Your task to perform on an android device: Search for "asus zenbook" on costco, select the first entry, and add it to the cart. Image 0: 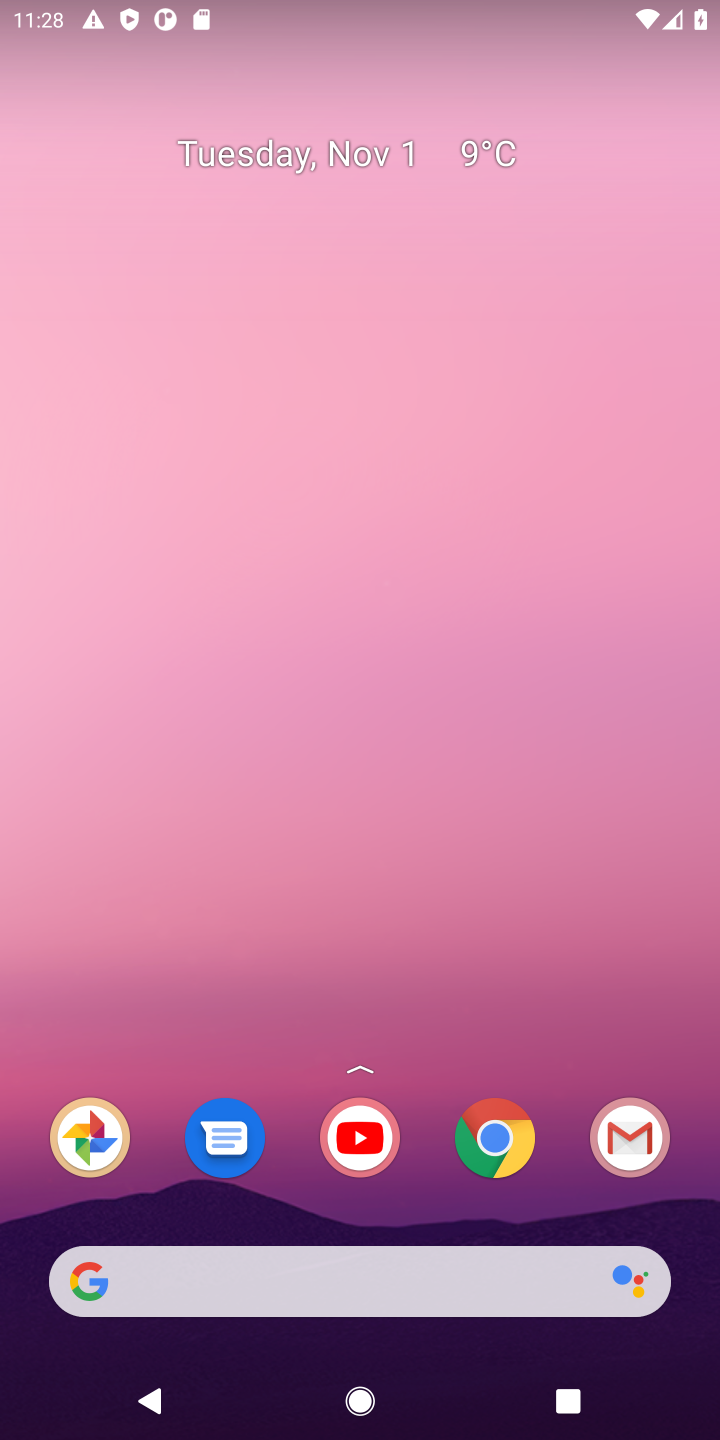
Step 0: click (289, 1289)
Your task to perform on an android device: Search for "asus zenbook" on costco, select the first entry, and add it to the cart. Image 1: 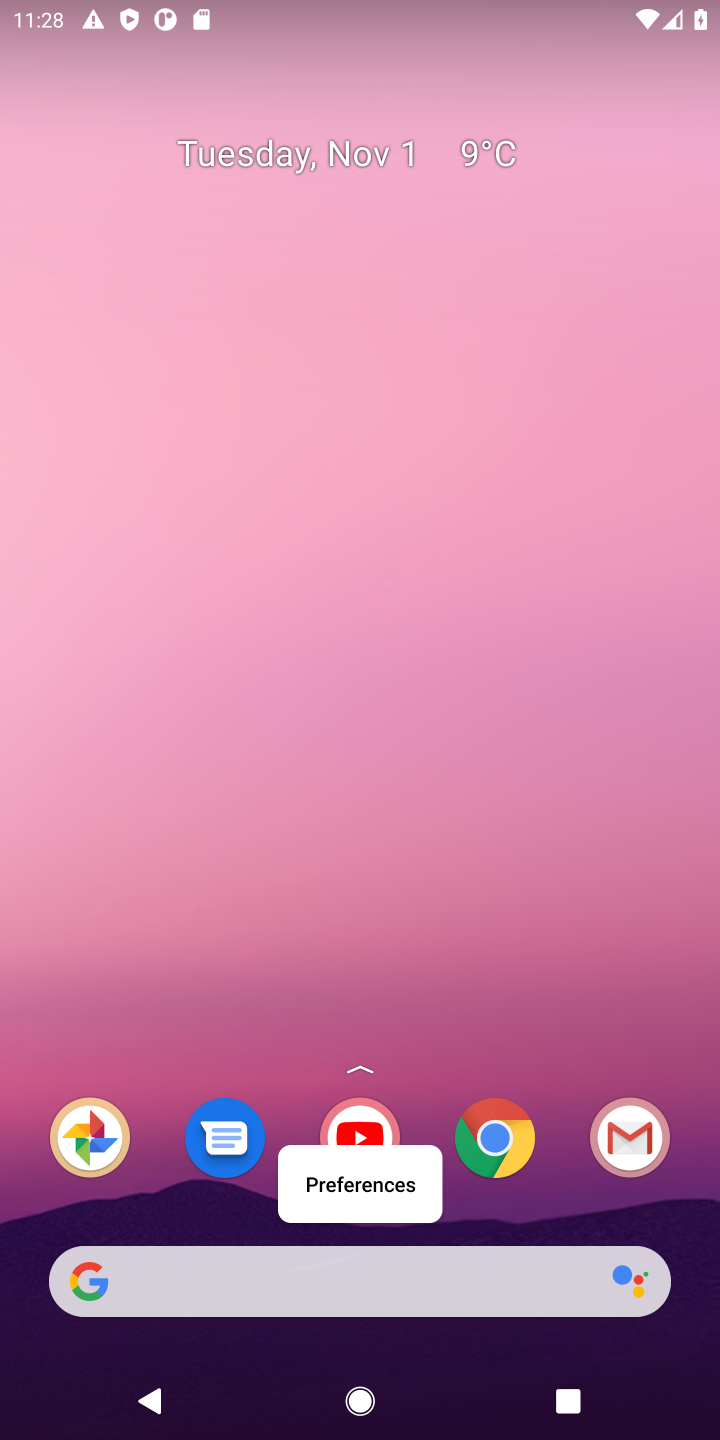
Step 1: click (297, 1299)
Your task to perform on an android device: Search for "asus zenbook" on costco, select the first entry, and add it to the cart. Image 2: 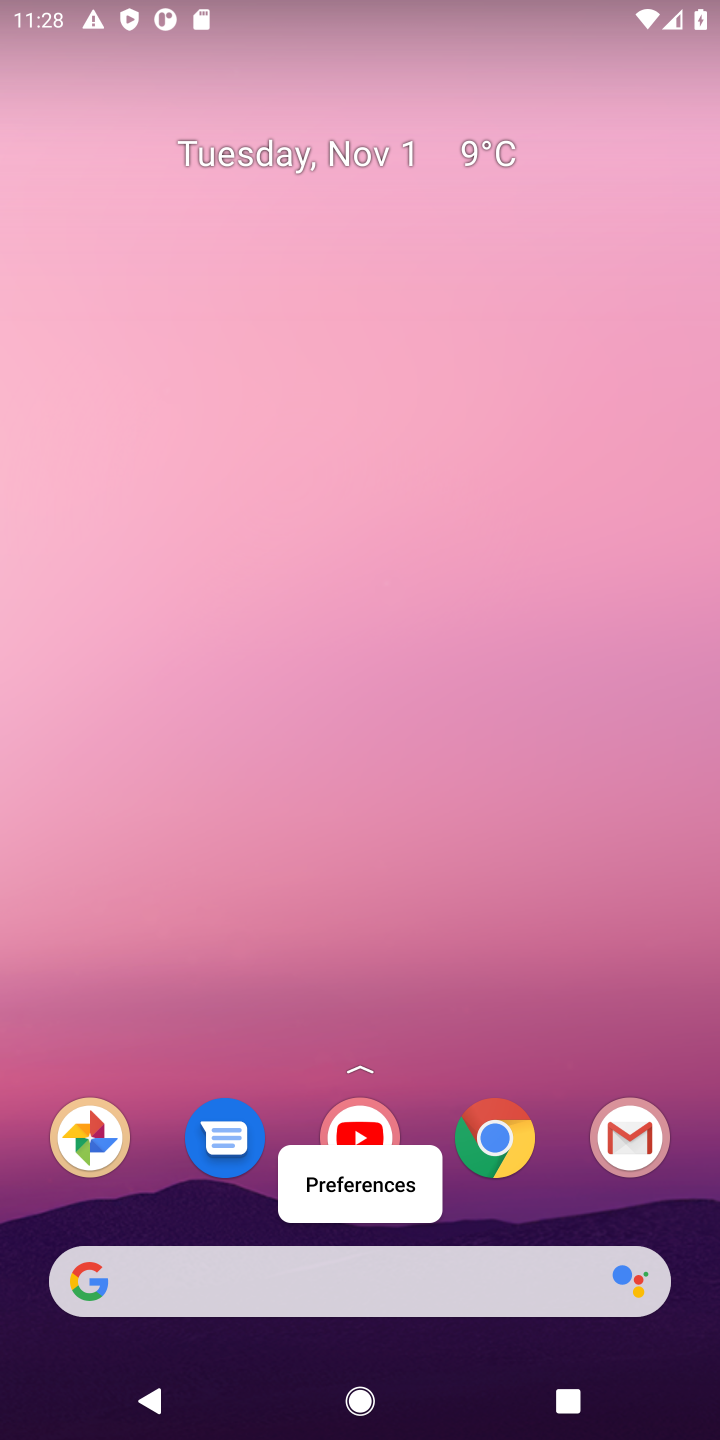
Step 2: click (446, 1274)
Your task to perform on an android device: Search for "asus zenbook" on costco, select the first entry, and add it to the cart. Image 3: 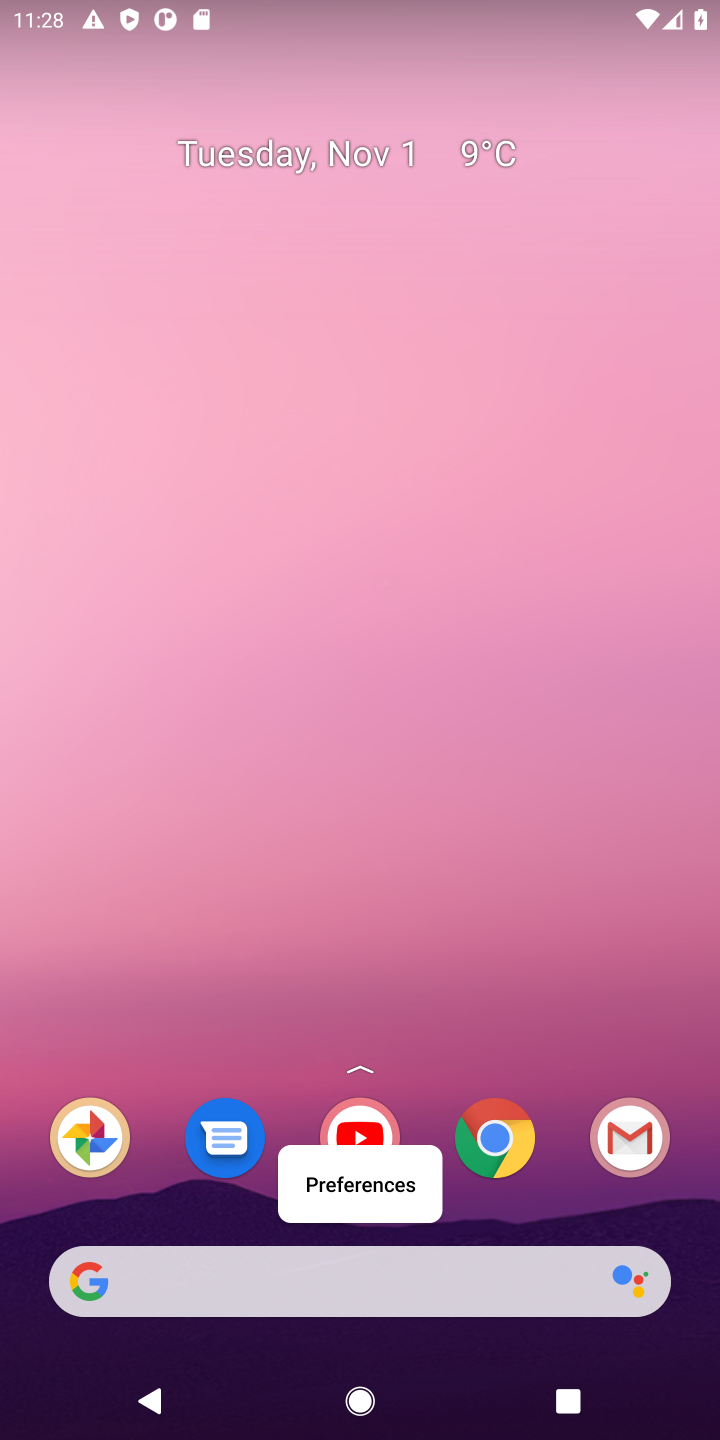
Step 3: click (446, 1274)
Your task to perform on an android device: Search for "asus zenbook" on costco, select the first entry, and add it to the cart. Image 4: 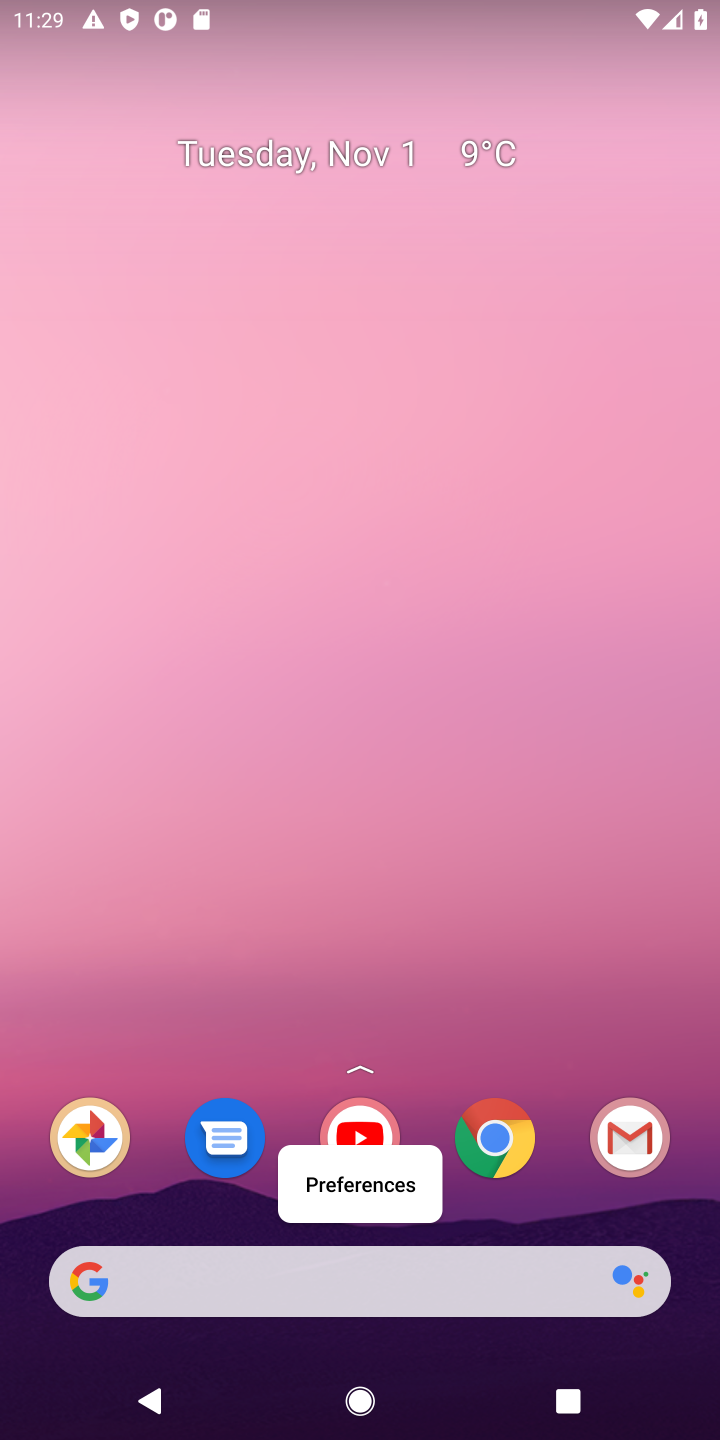
Step 4: click (430, 1297)
Your task to perform on an android device: Search for "asus zenbook" on costco, select the first entry, and add it to the cart. Image 5: 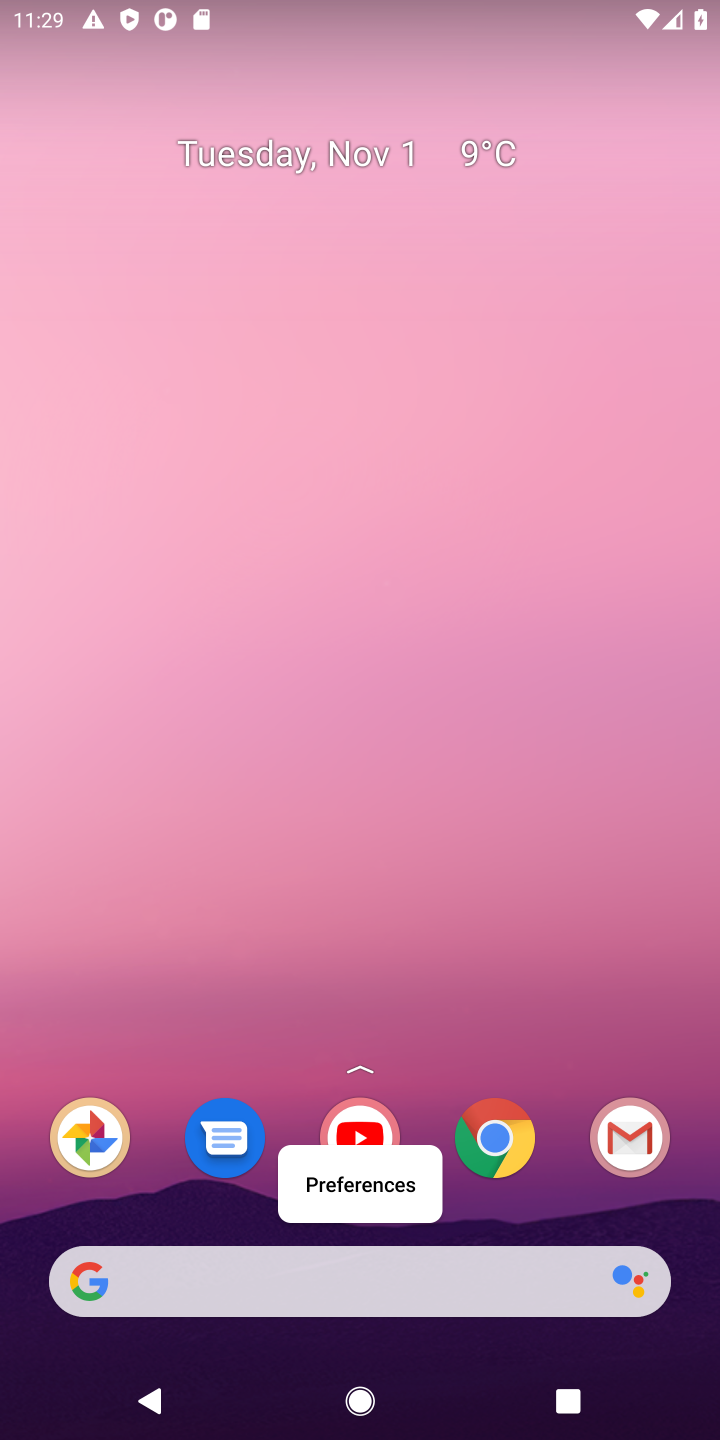
Step 5: click (453, 1280)
Your task to perform on an android device: Search for "asus zenbook" on costco, select the first entry, and add it to the cart. Image 6: 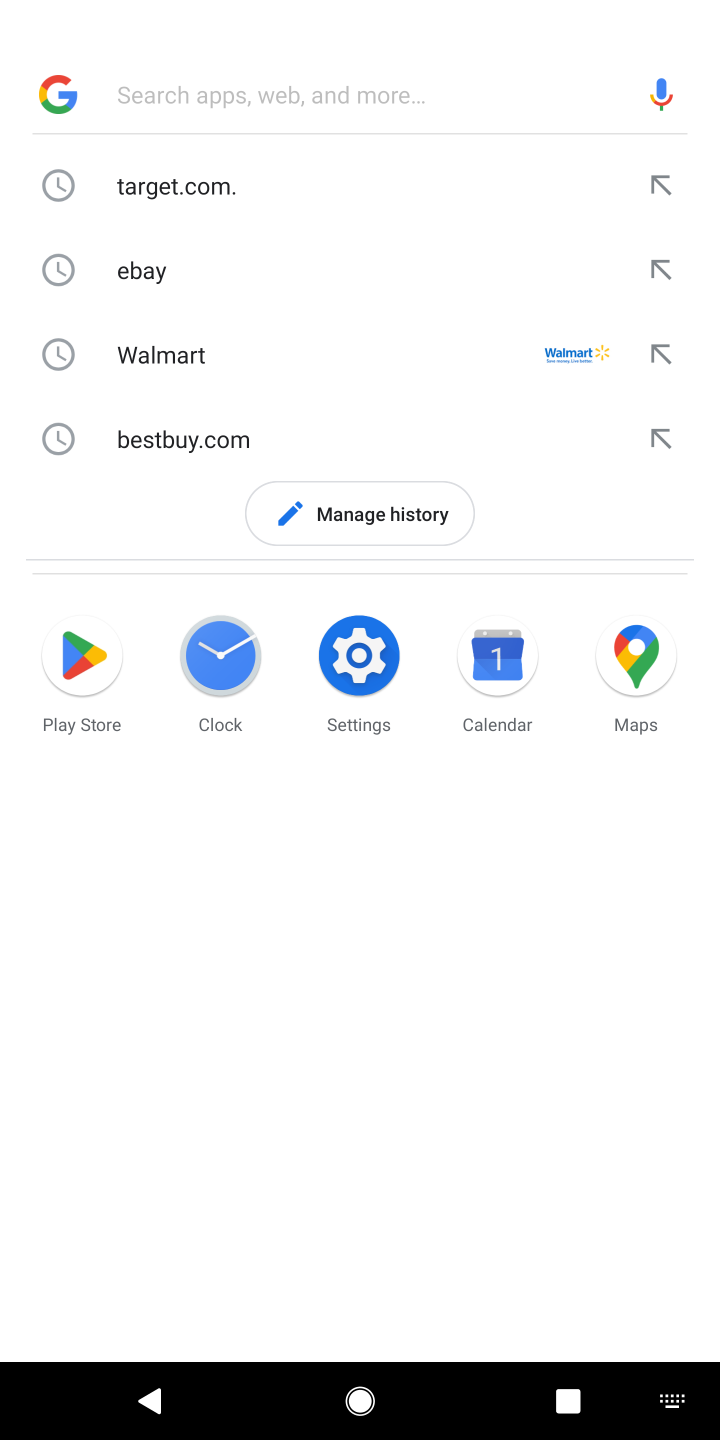
Step 6: type "costco"
Your task to perform on an android device: Search for "asus zenbook" on costco, select the first entry, and add it to the cart. Image 7: 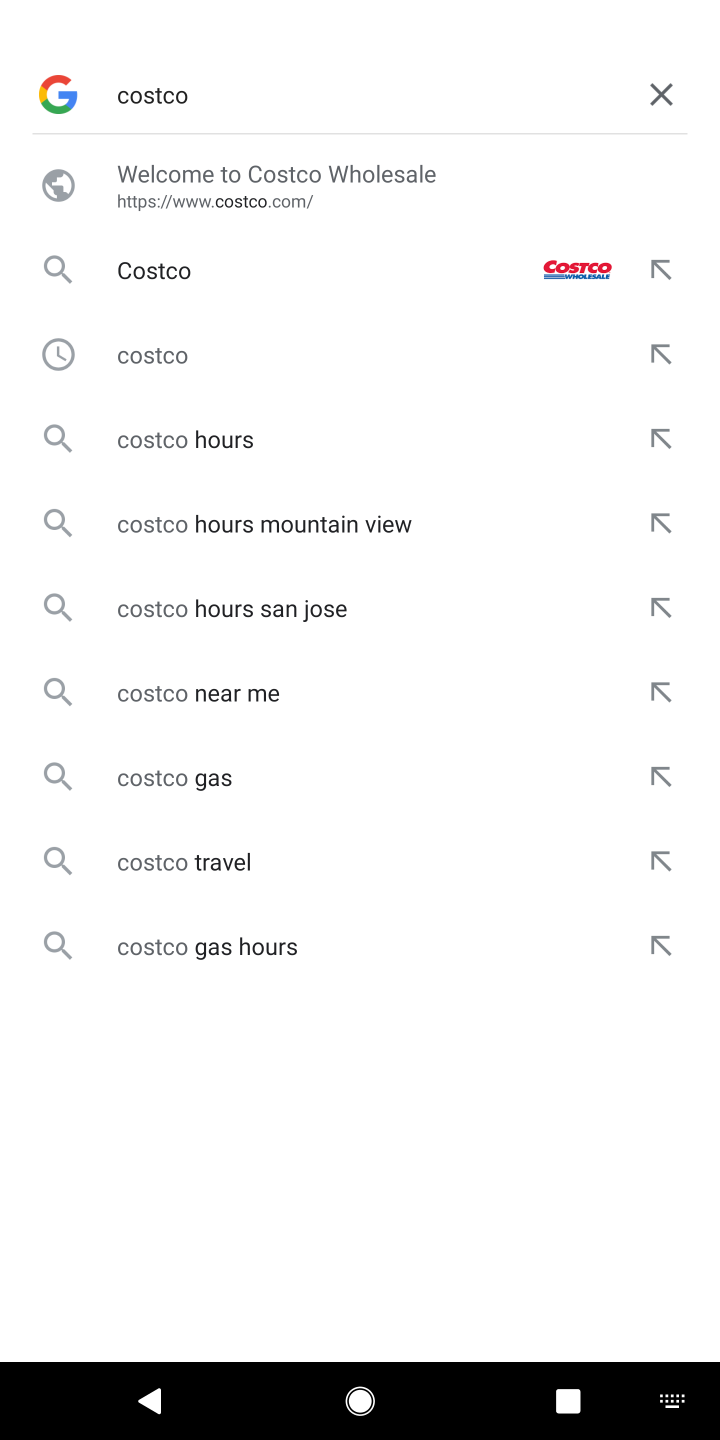
Step 7: type ""
Your task to perform on an android device: Search for "asus zenbook" on costco, select the first entry, and add it to the cart. Image 8: 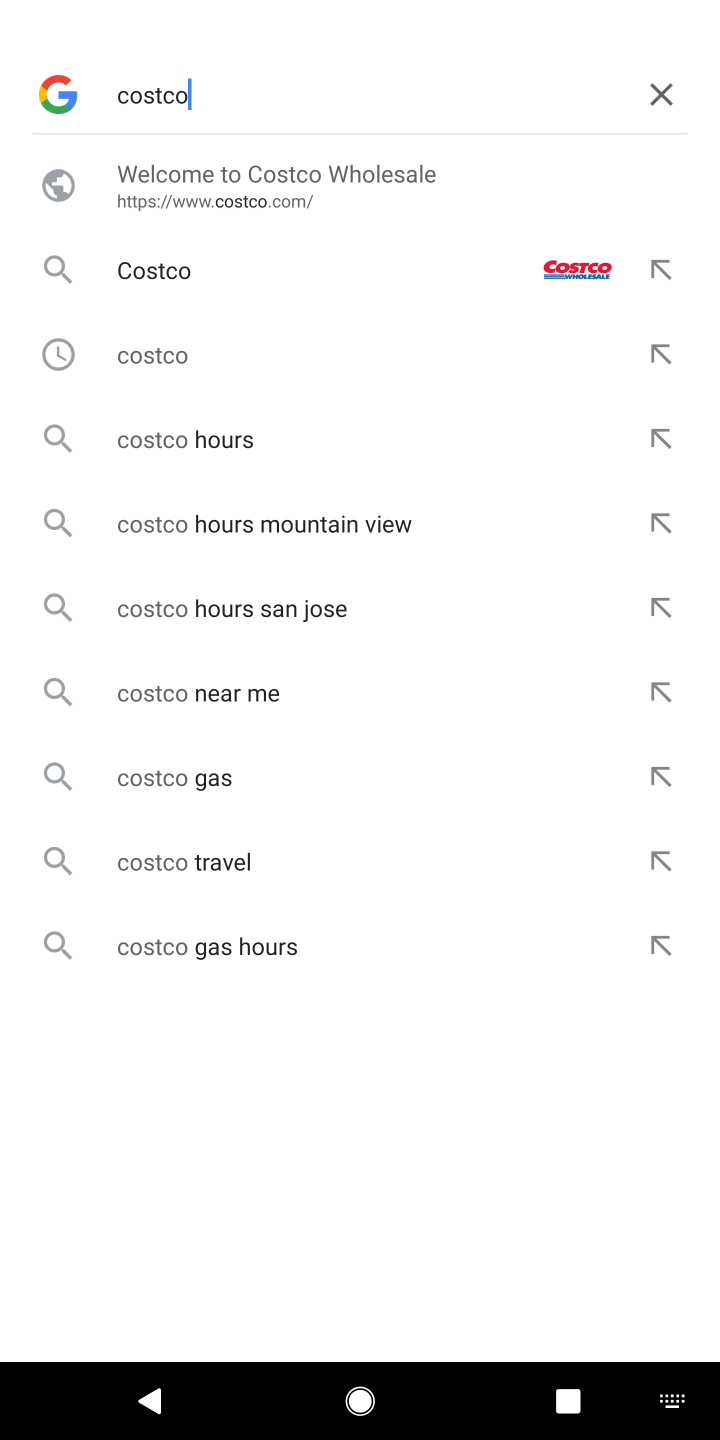
Step 8: click (230, 257)
Your task to perform on an android device: Search for "asus zenbook" on costco, select the first entry, and add it to the cart. Image 9: 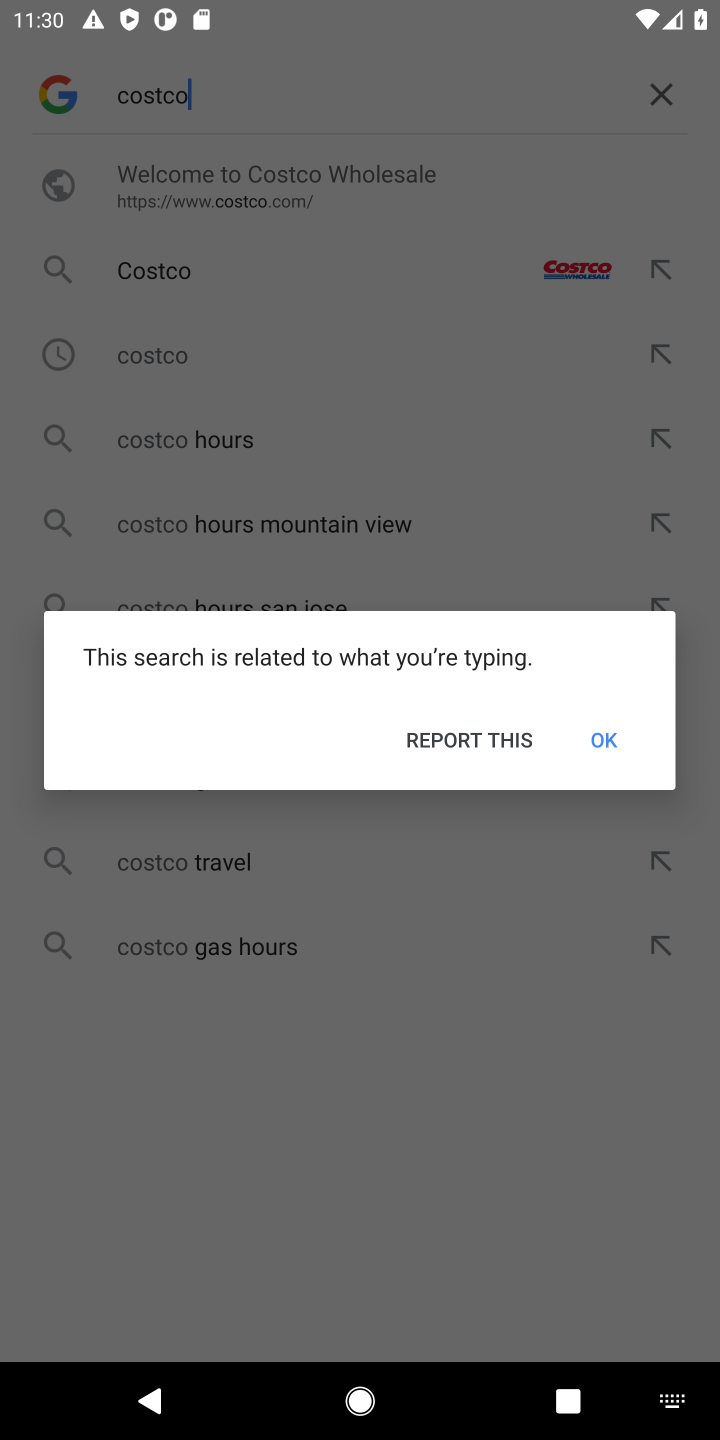
Step 9: click (595, 729)
Your task to perform on an android device: Search for "asus zenbook" on costco, select the first entry, and add it to the cart. Image 10: 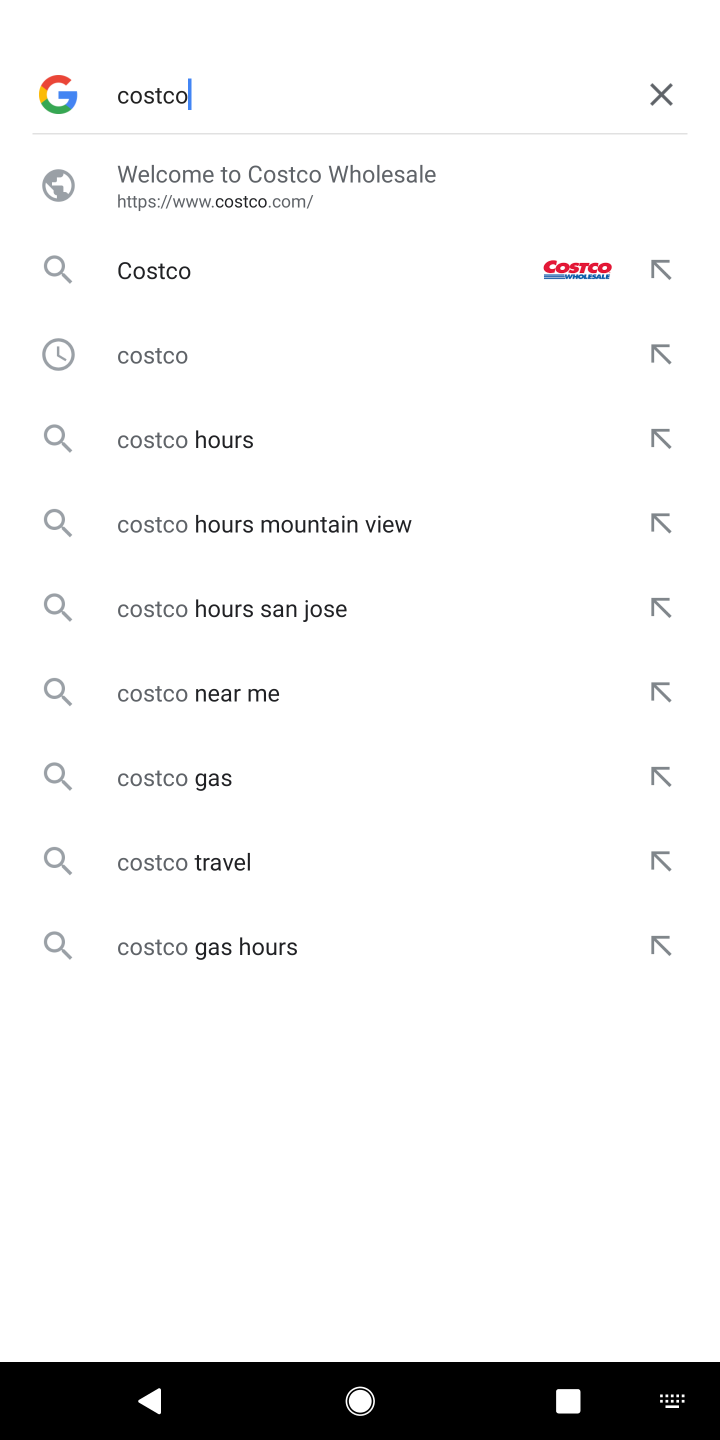
Step 10: click (254, 290)
Your task to perform on an android device: Search for "asus zenbook" on costco, select the first entry, and add it to the cart. Image 11: 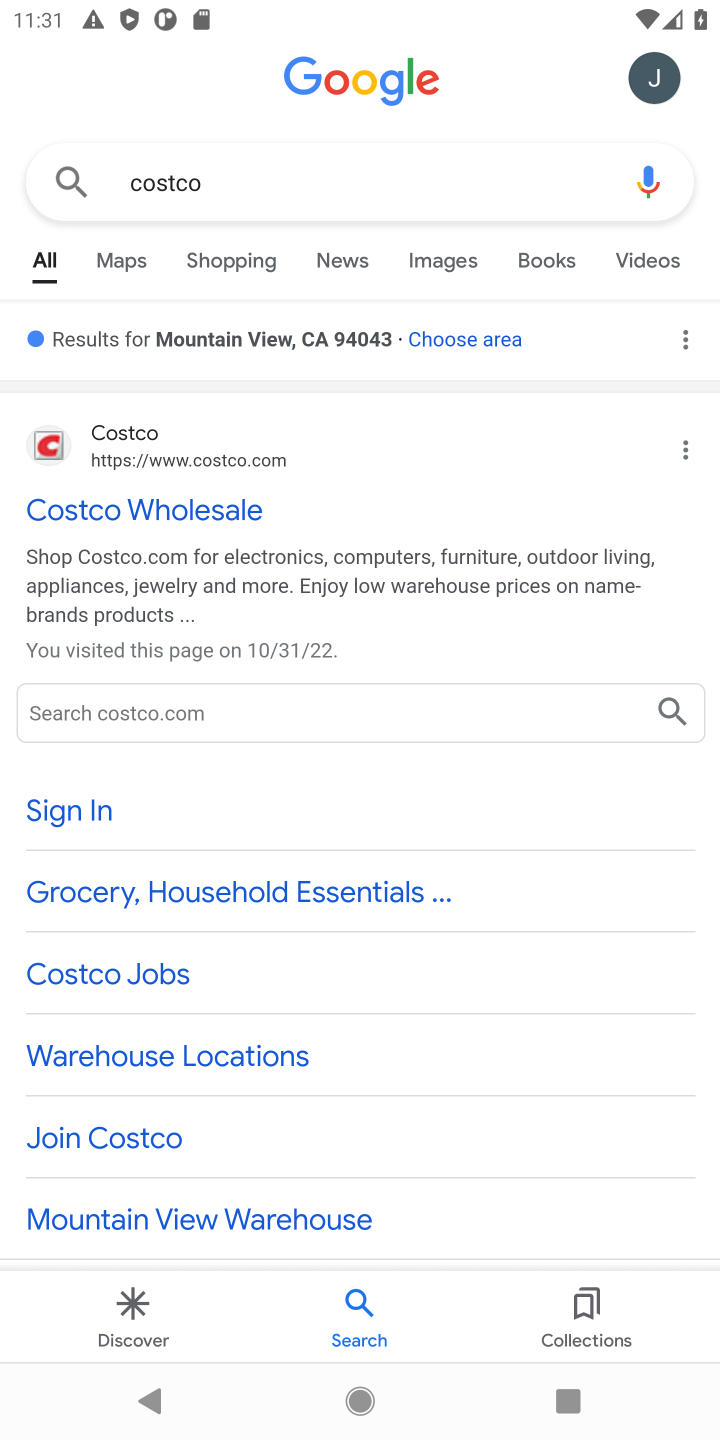
Step 11: click (110, 531)
Your task to perform on an android device: Search for "asus zenbook" on costco, select the first entry, and add it to the cart. Image 12: 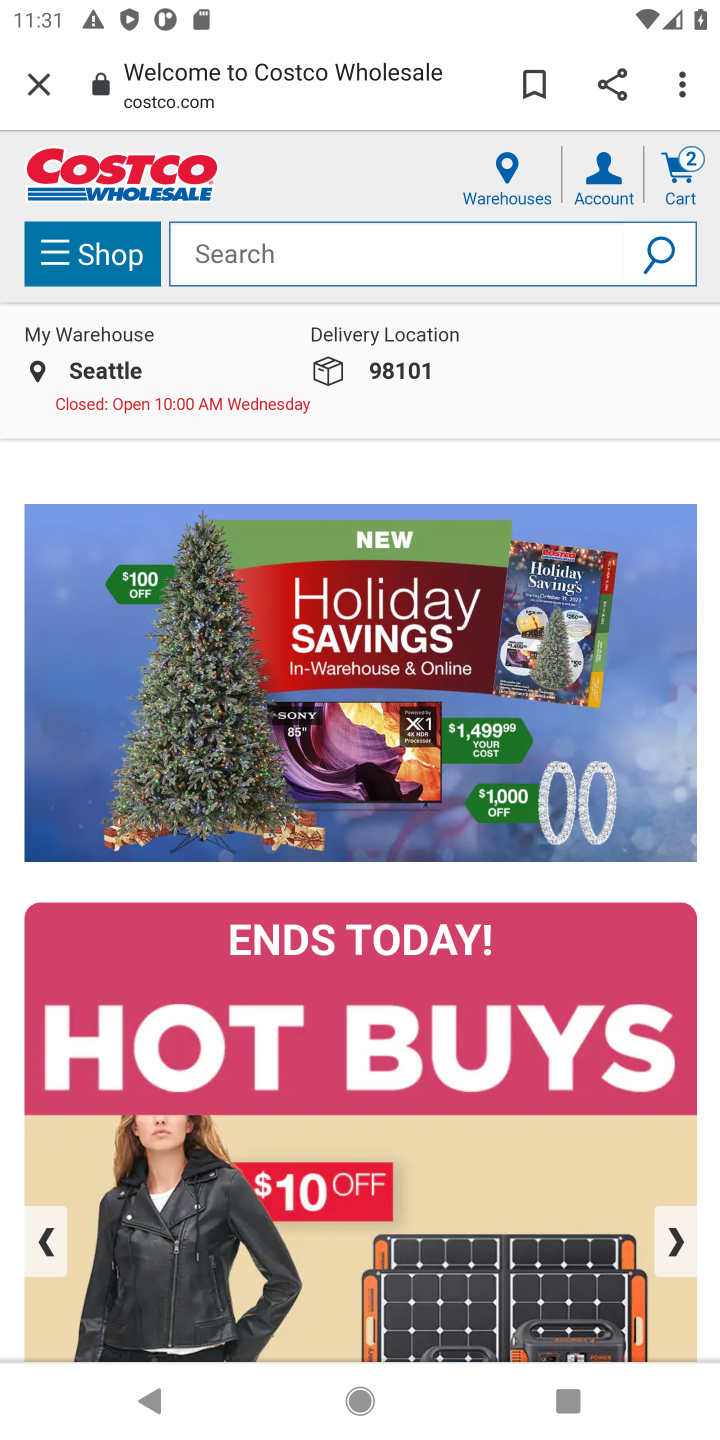
Step 12: click (257, 253)
Your task to perform on an android device: Search for "asus zenbook" on costco, select the first entry, and add it to the cart. Image 13: 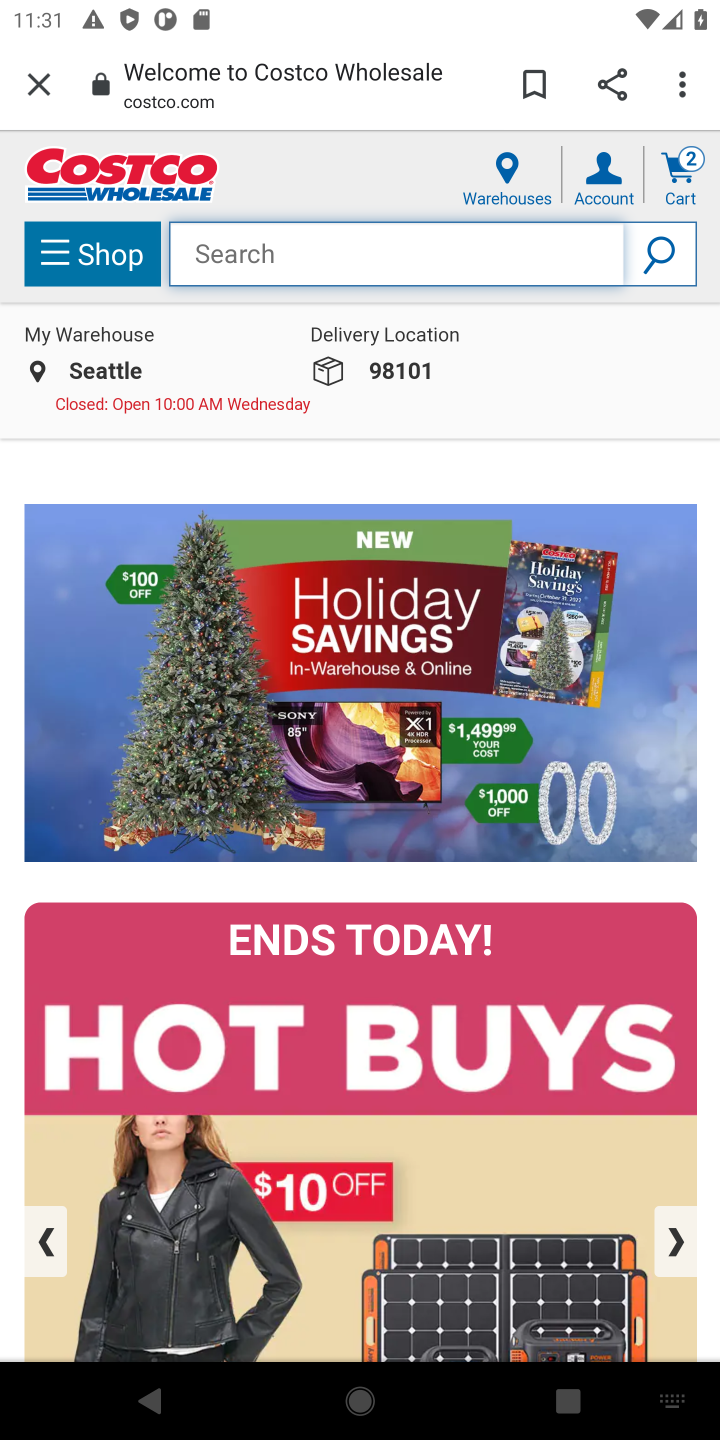
Step 13: type "asus zenbook"
Your task to perform on an android device: Search for "asus zenbook" on costco, select the first entry, and add it to the cart. Image 14: 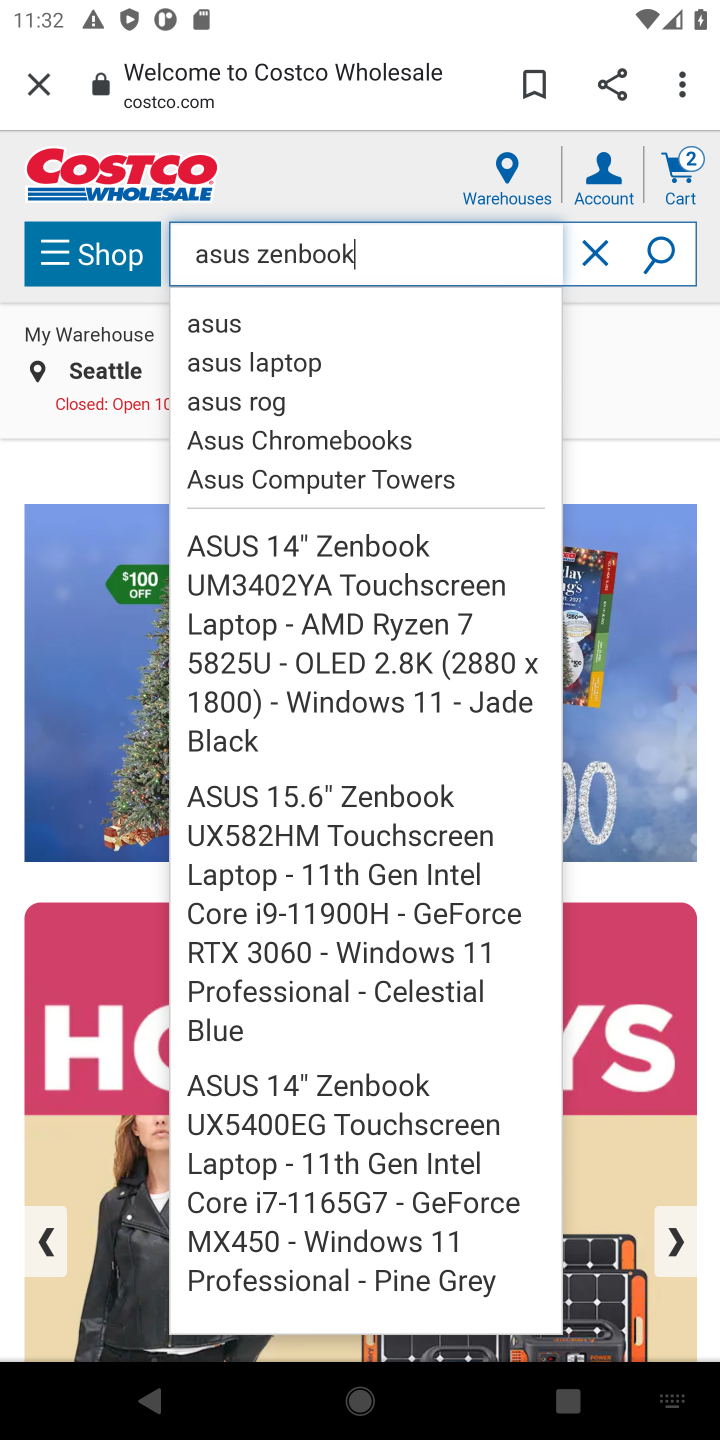
Step 14: click (653, 255)
Your task to perform on an android device: Search for "asus zenbook" on costco, select the first entry, and add it to the cart. Image 15: 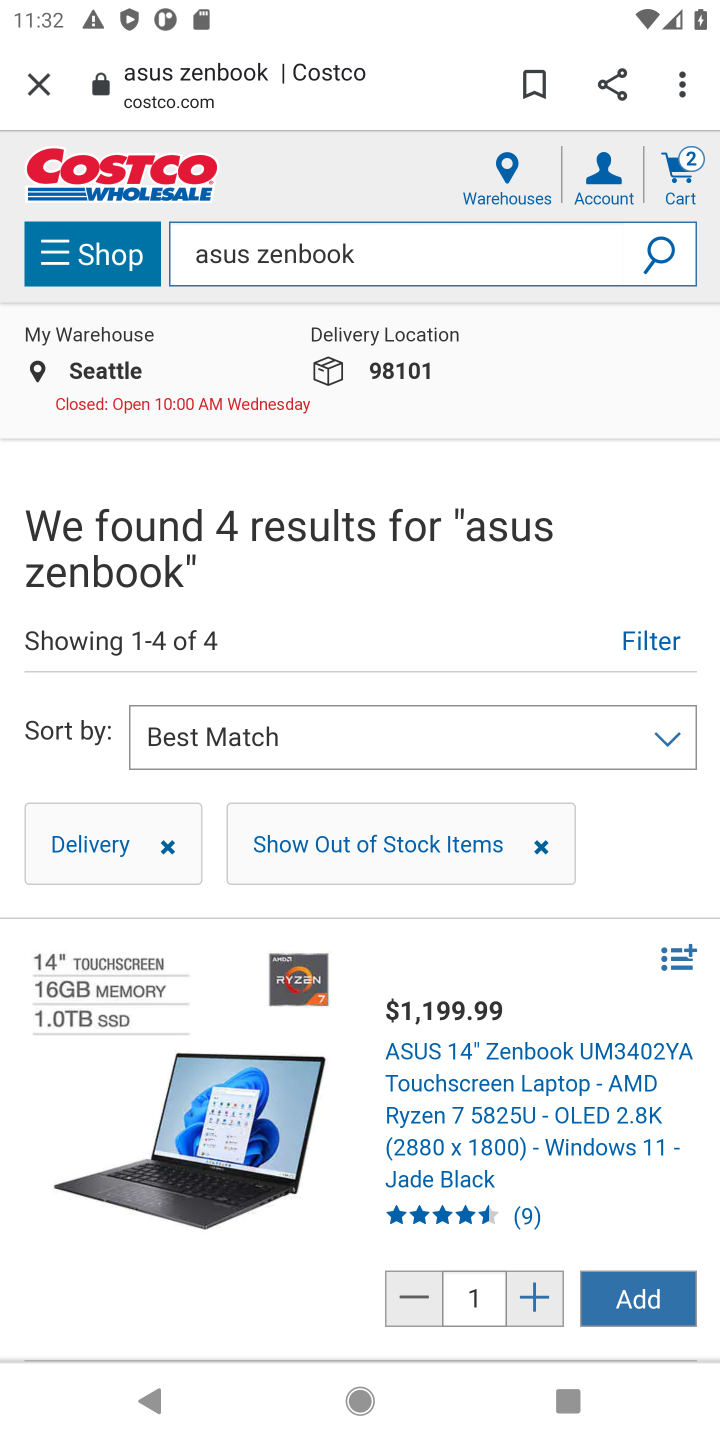
Step 15: click (408, 1045)
Your task to perform on an android device: Search for "asus zenbook" on costco, select the first entry, and add it to the cart. Image 16: 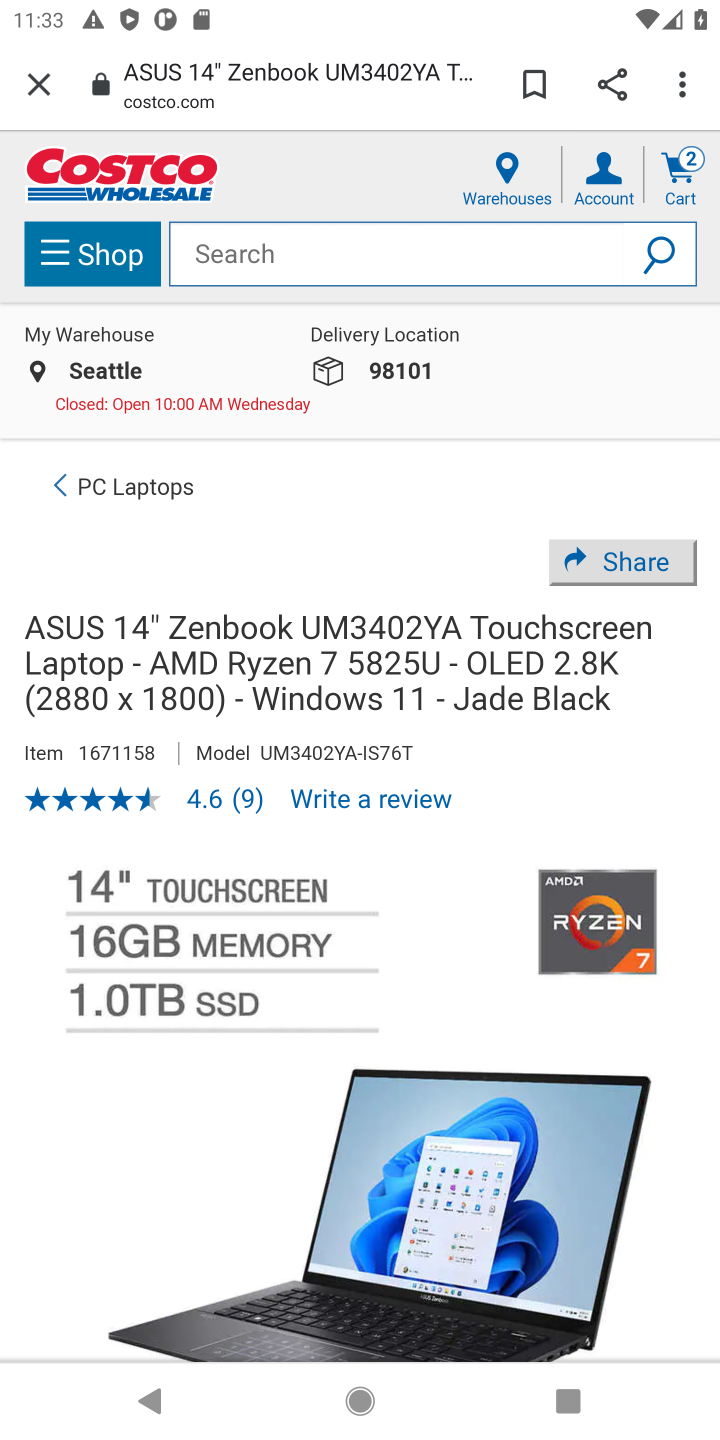
Step 16: drag from (342, 1080) to (332, 431)
Your task to perform on an android device: Search for "asus zenbook" on costco, select the first entry, and add it to the cart. Image 17: 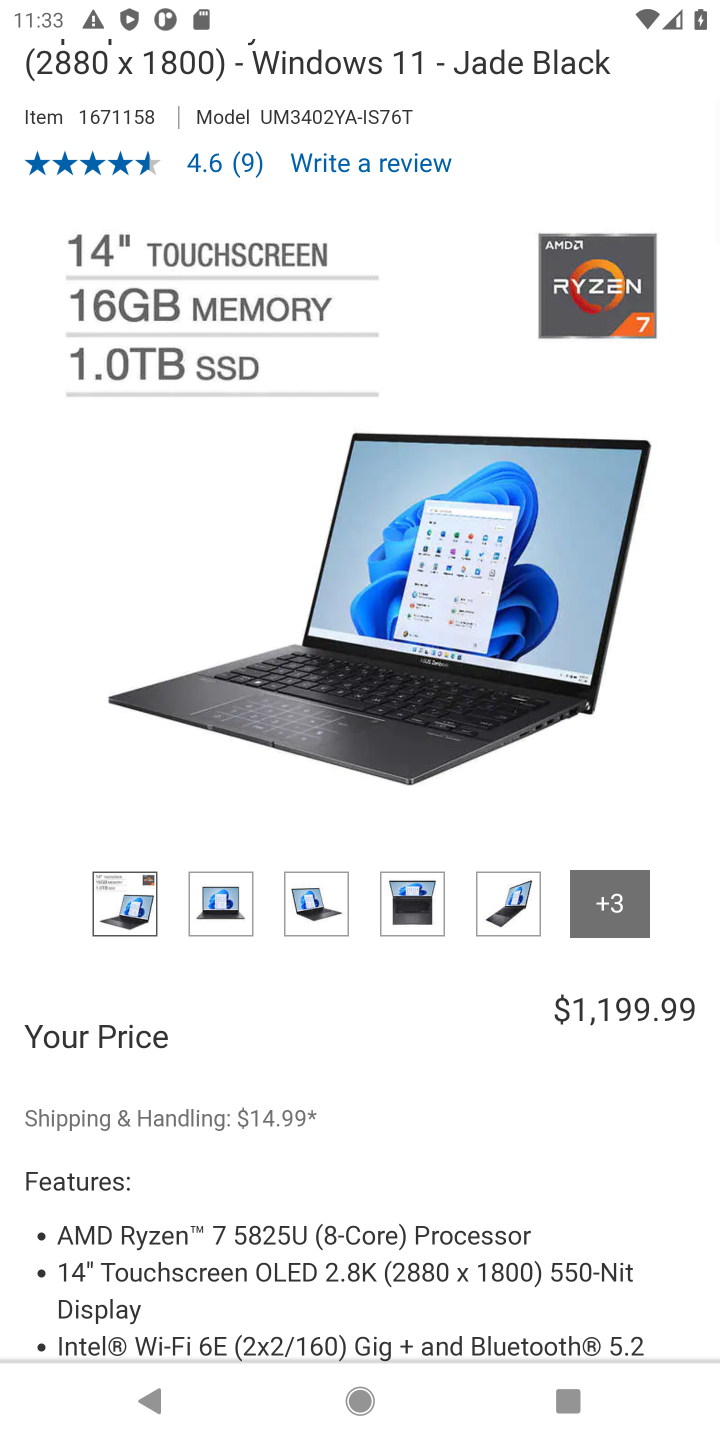
Step 17: drag from (356, 1068) to (360, 573)
Your task to perform on an android device: Search for "asus zenbook" on costco, select the first entry, and add it to the cart. Image 18: 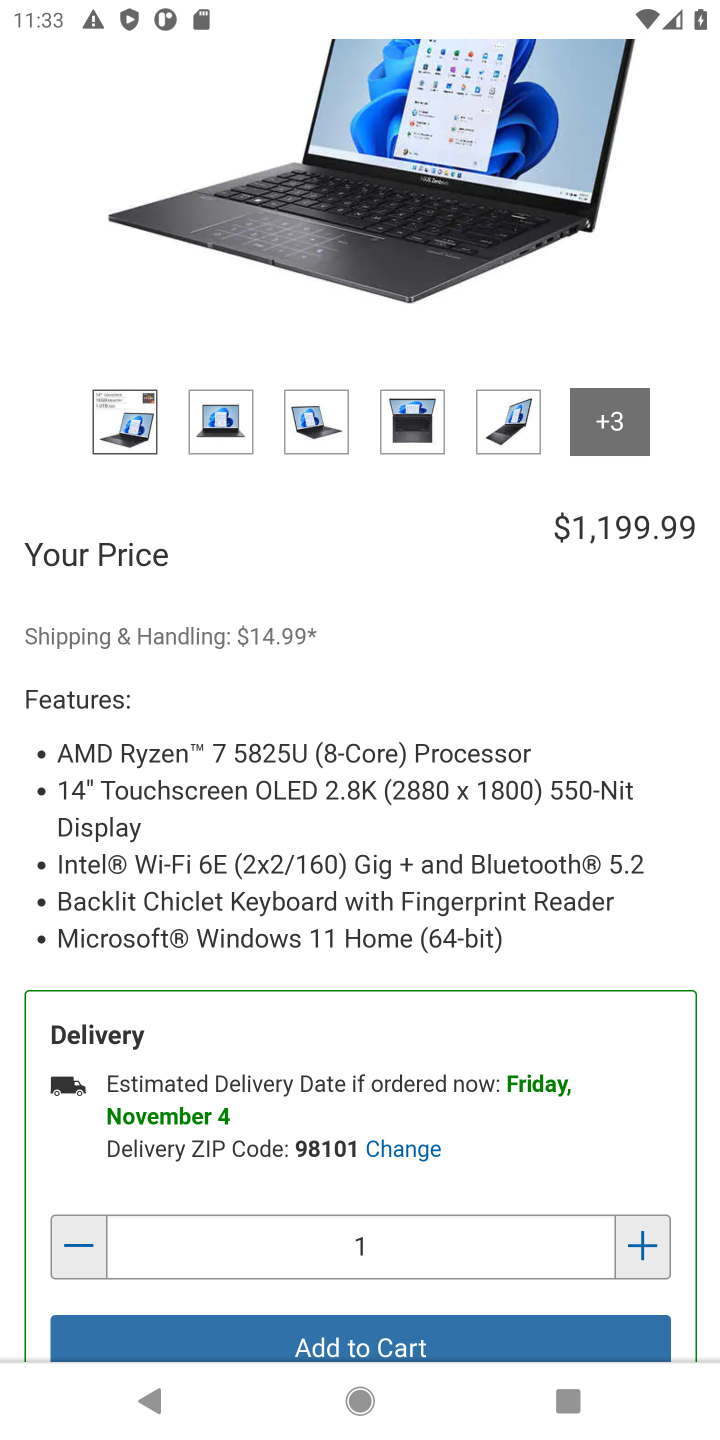
Step 18: click (311, 1338)
Your task to perform on an android device: Search for "asus zenbook" on costco, select the first entry, and add it to the cart. Image 19: 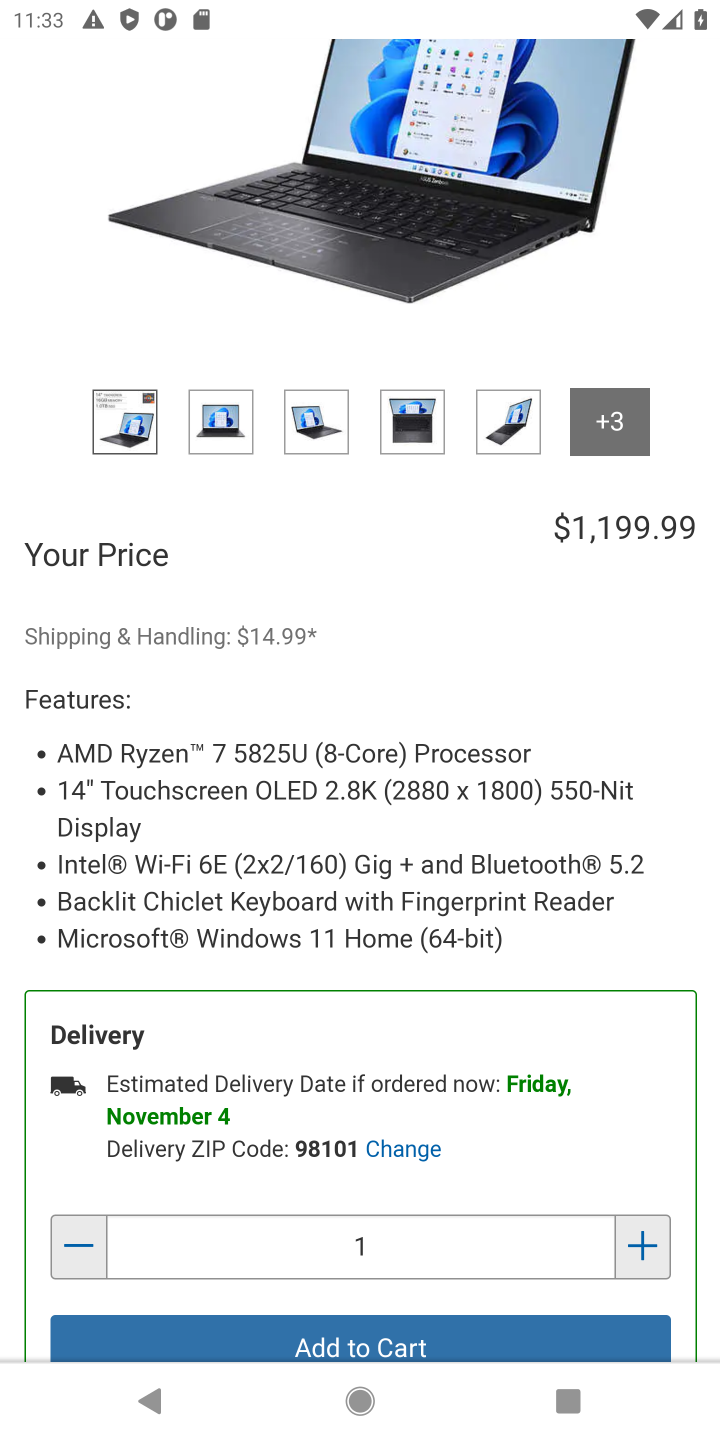
Step 19: task complete